Your task to perform on an android device: Go to wifi settings Image 0: 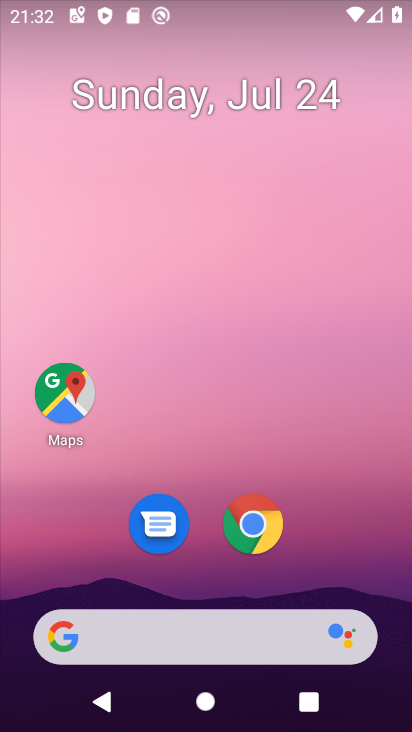
Step 0: drag from (160, 630) to (254, 62)
Your task to perform on an android device: Go to wifi settings Image 1: 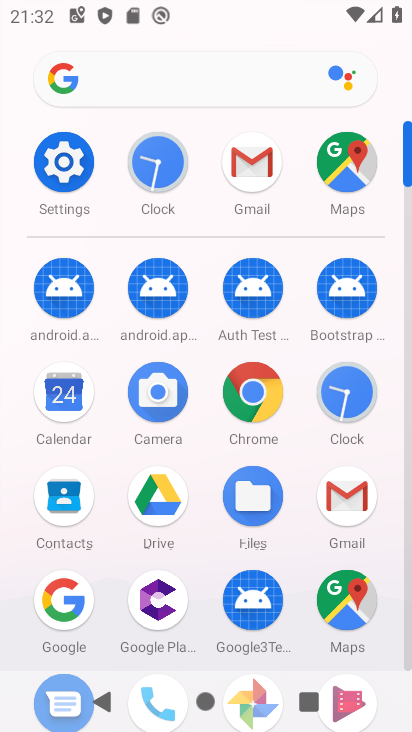
Step 1: click (63, 176)
Your task to perform on an android device: Go to wifi settings Image 2: 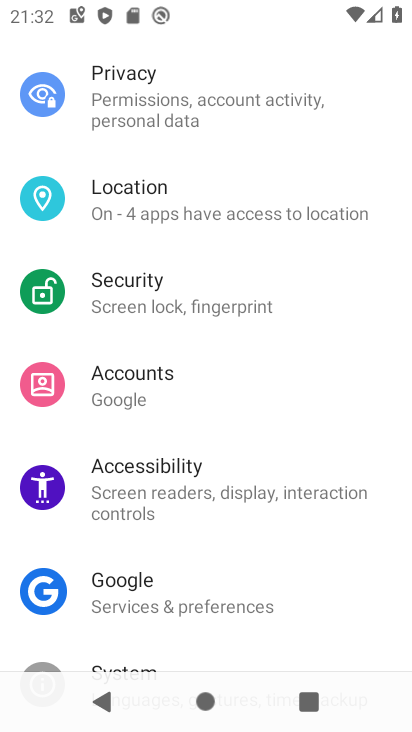
Step 2: drag from (325, 129) to (294, 553)
Your task to perform on an android device: Go to wifi settings Image 3: 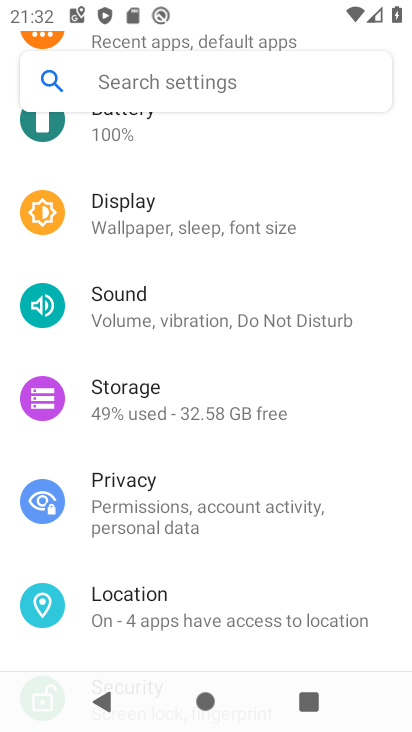
Step 3: drag from (293, 147) to (282, 617)
Your task to perform on an android device: Go to wifi settings Image 4: 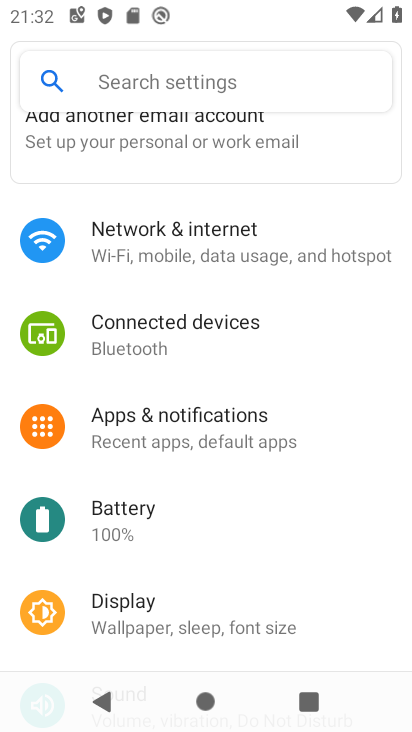
Step 4: click (174, 244)
Your task to perform on an android device: Go to wifi settings Image 5: 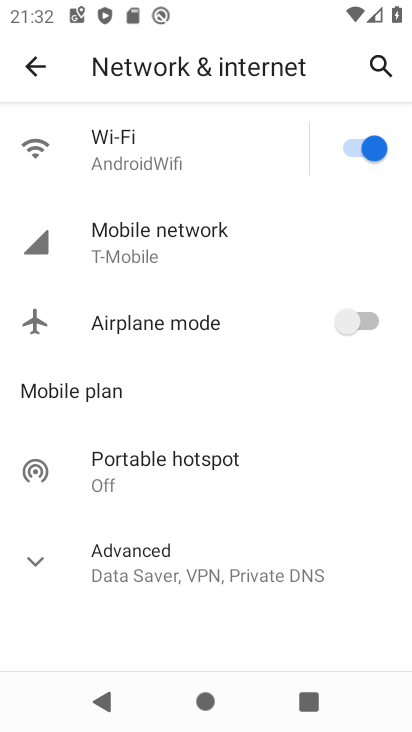
Step 5: click (119, 153)
Your task to perform on an android device: Go to wifi settings Image 6: 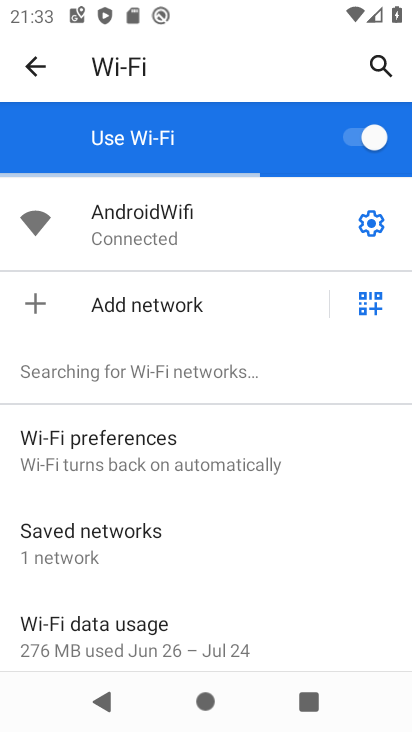
Step 6: task complete